Your task to perform on an android device: Turn off the flashlight Image 0: 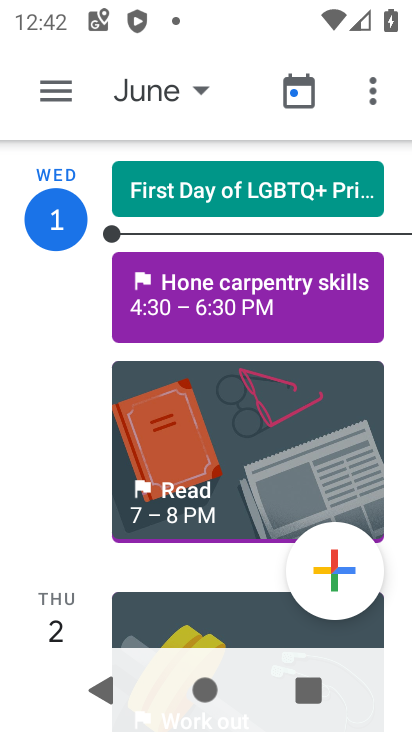
Step 0: task impossible